Your task to perform on an android device: change the clock style Image 0: 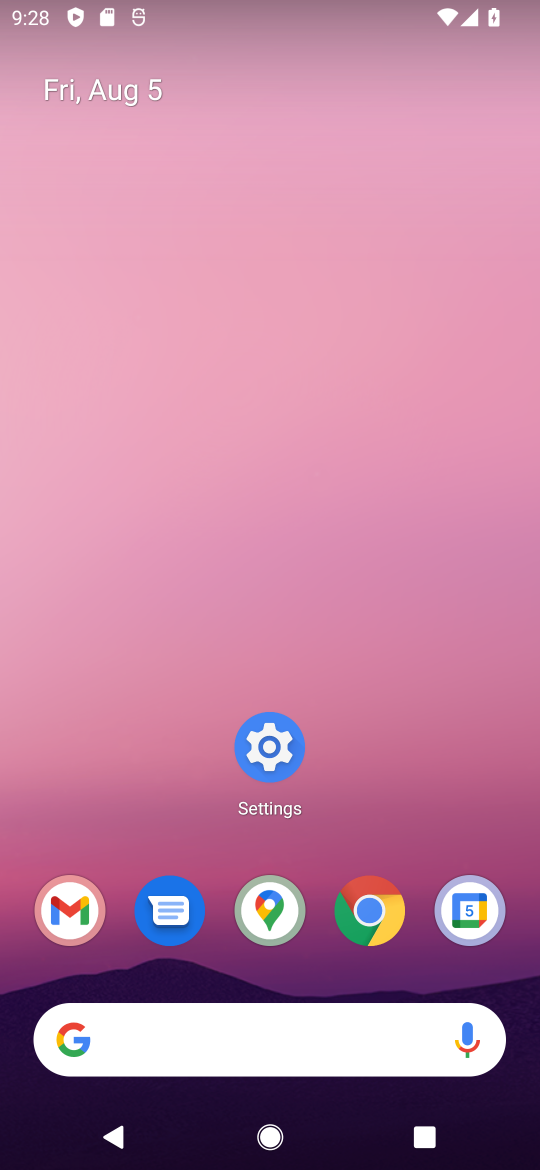
Step 0: press home button
Your task to perform on an android device: change the clock style Image 1: 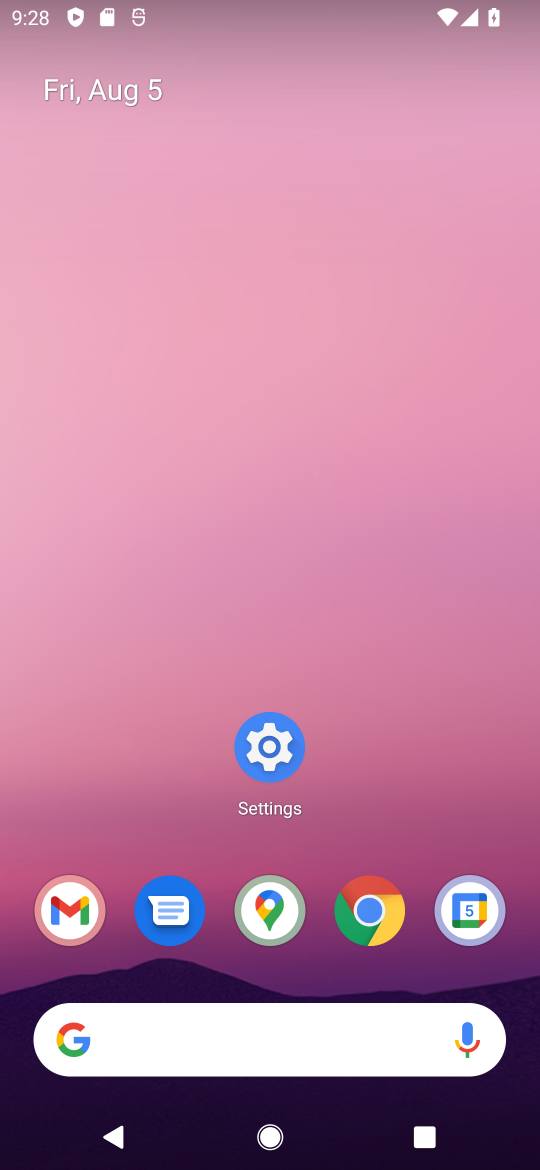
Step 1: drag from (374, 912) to (531, 236)
Your task to perform on an android device: change the clock style Image 2: 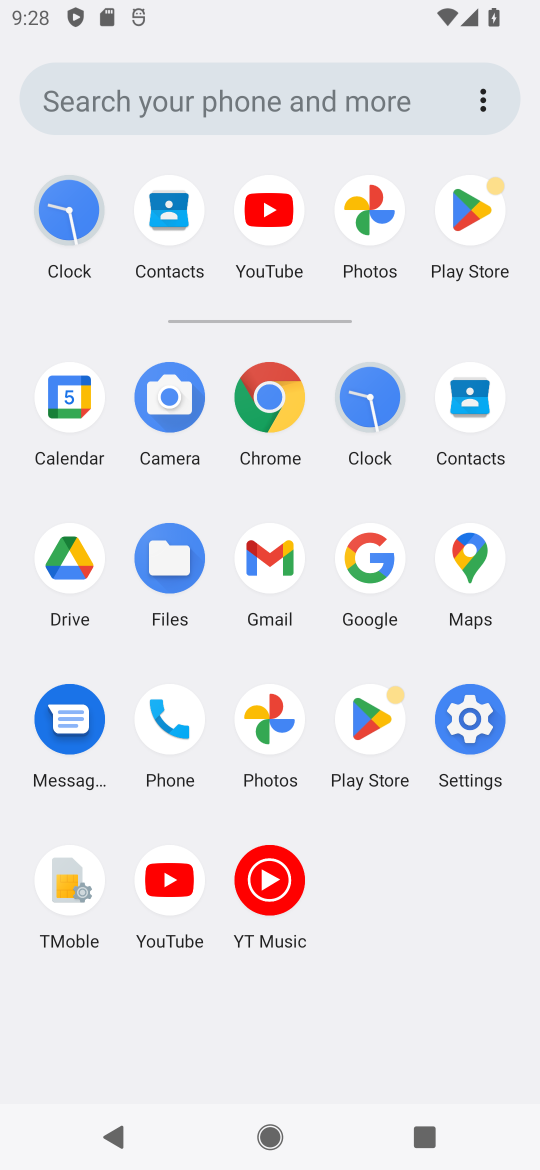
Step 2: click (59, 229)
Your task to perform on an android device: change the clock style Image 3: 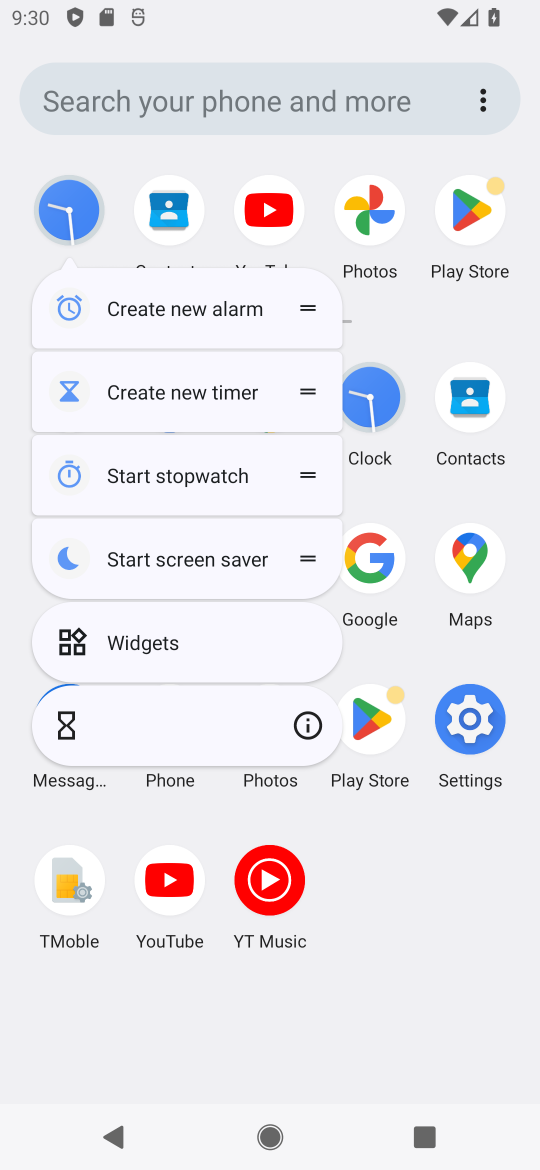
Step 3: click (380, 410)
Your task to perform on an android device: change the clock style Image 4: 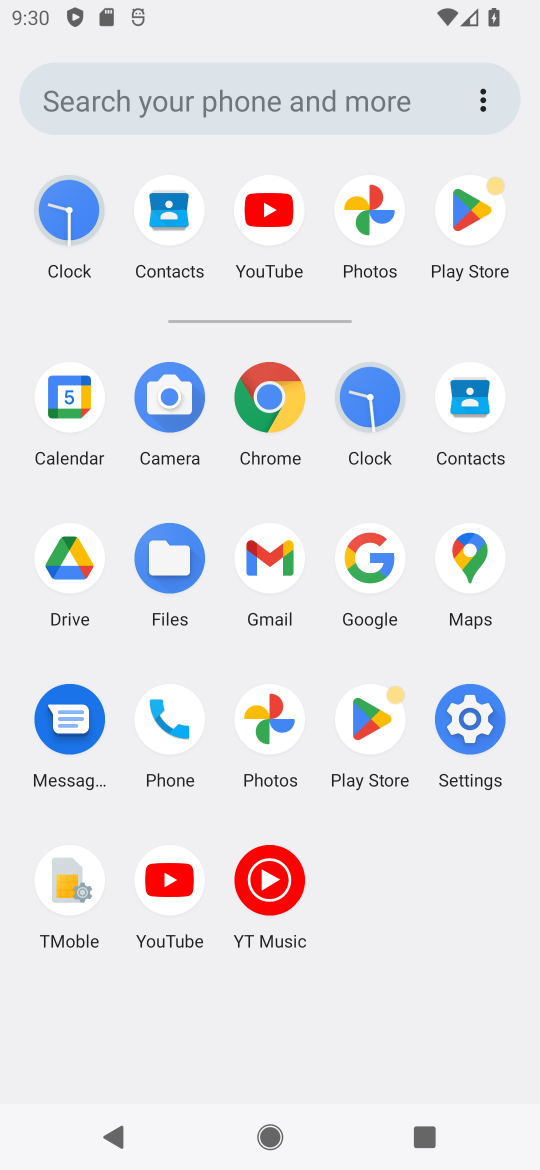
Step 4: click (381, 398)
Your task to perform on an android device: change the clock style Image 5: 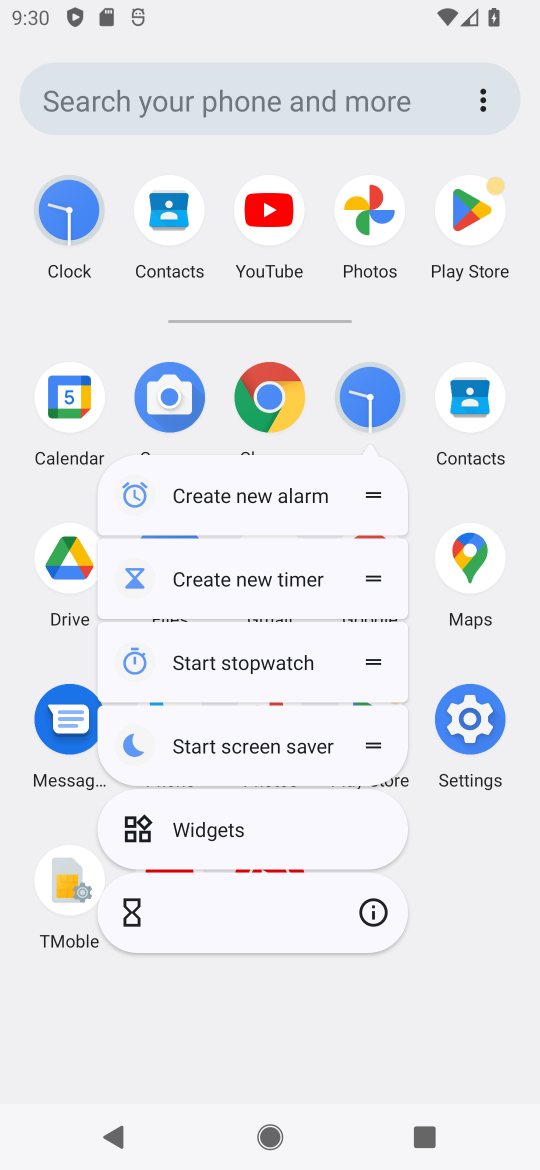
Step 5: click (367, 406)
Your task to perform on an android device: change the clock style Image 6: 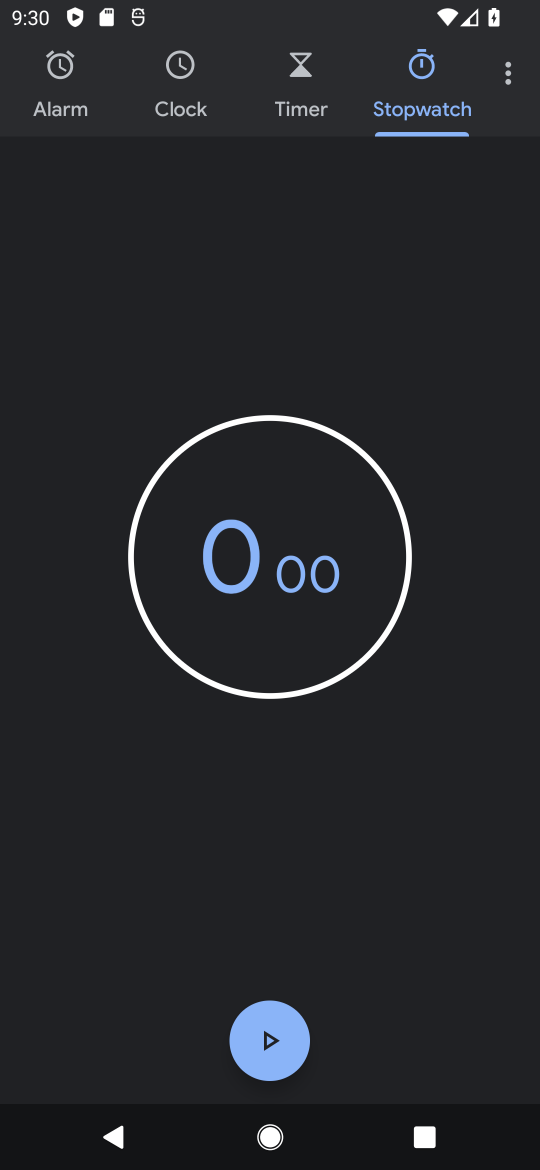
Step 6: click (514, 80)
Your task to perform on an android device: change the clock style Image 7: 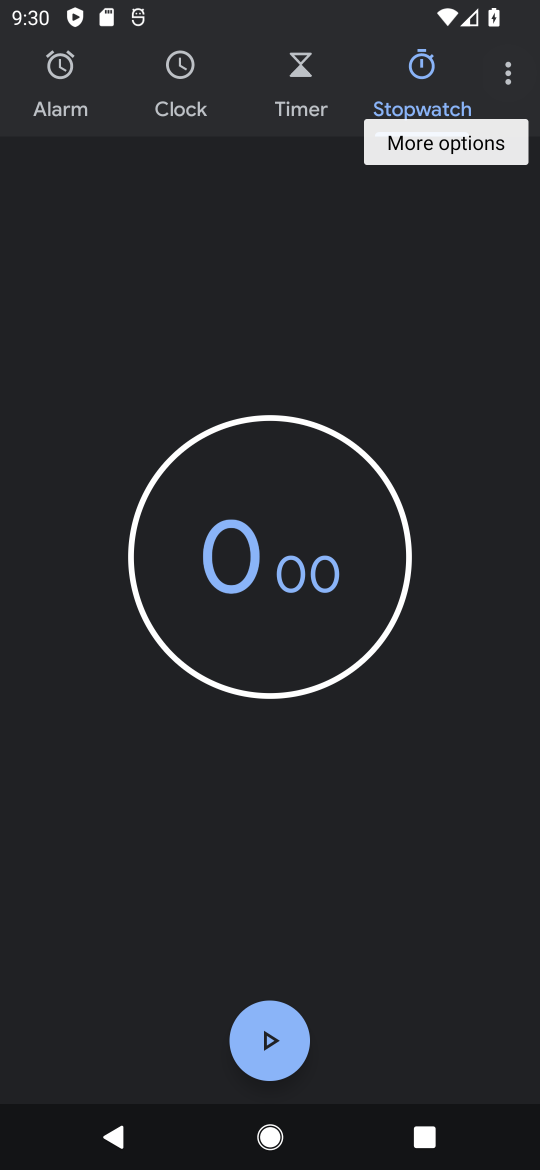
Step 7: click (509, 80)
Your task to perform on an android device: change the clock style Image 8: 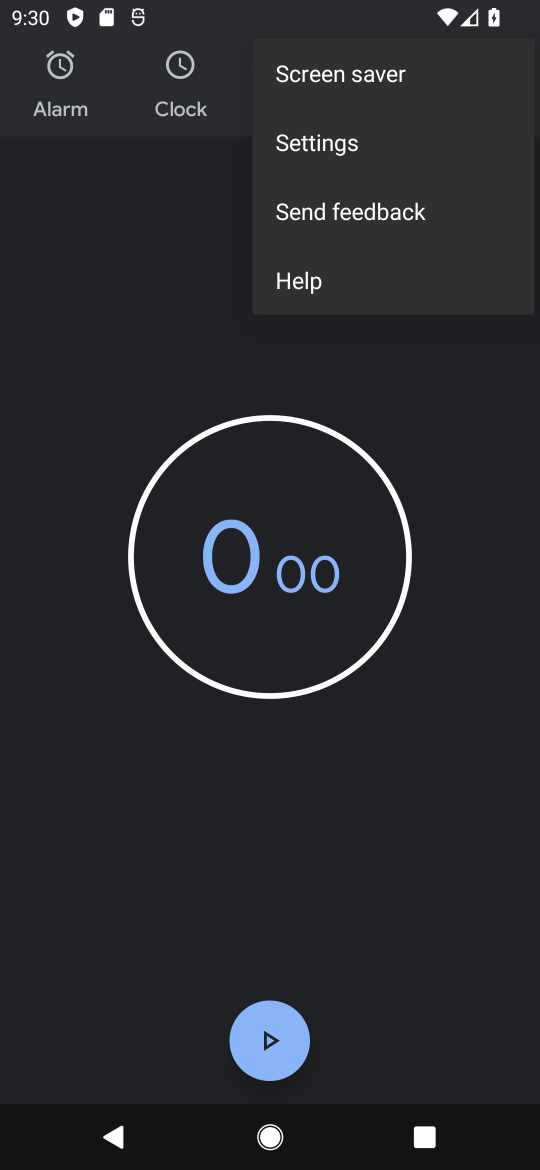
Step 8: click (329, 144)
Your task to perform on an android device: change the clock style Image 9: 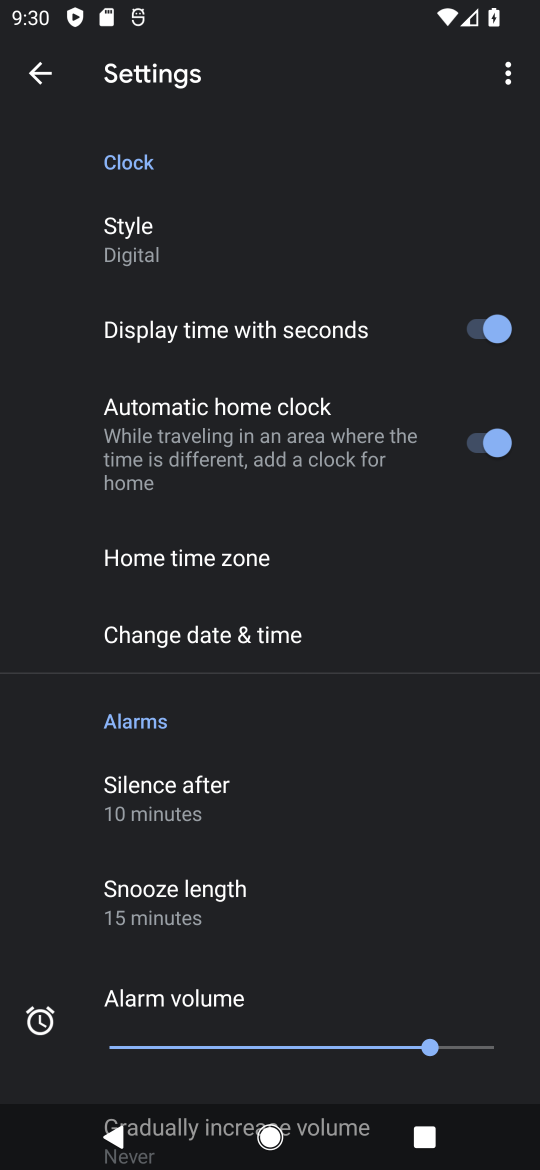
Step 9: click (154, 248)
Your task to perform on an android device: change the clock style Image 10: 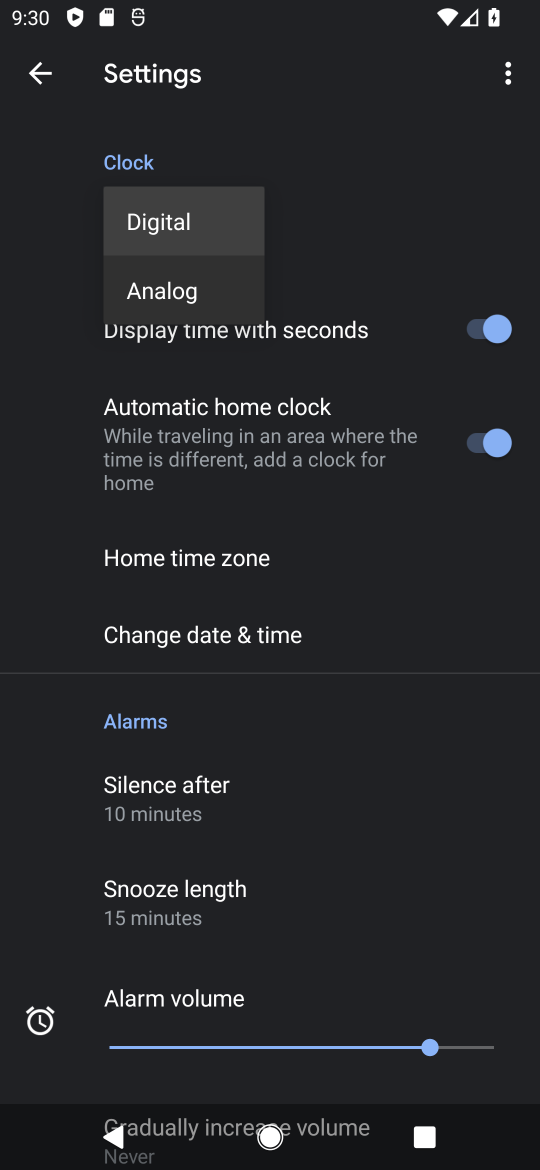
Step 10: click (181, 304)
Your task to perform on an android device: change the clock style Image 11: 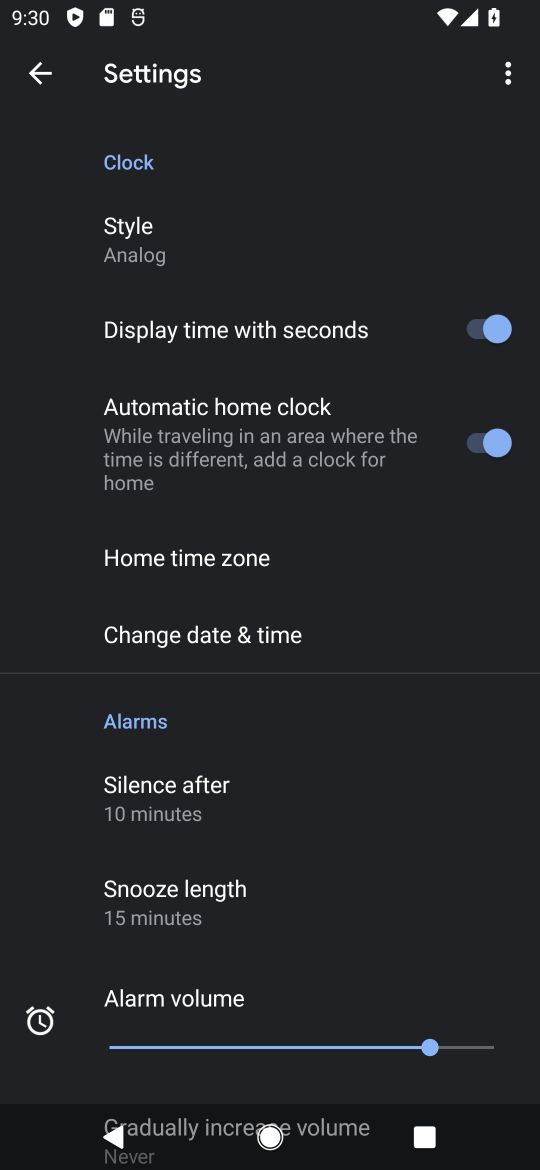
Step 11: task complete